Your task to perform on an android device: uninstall "Pinterest" Image 0: 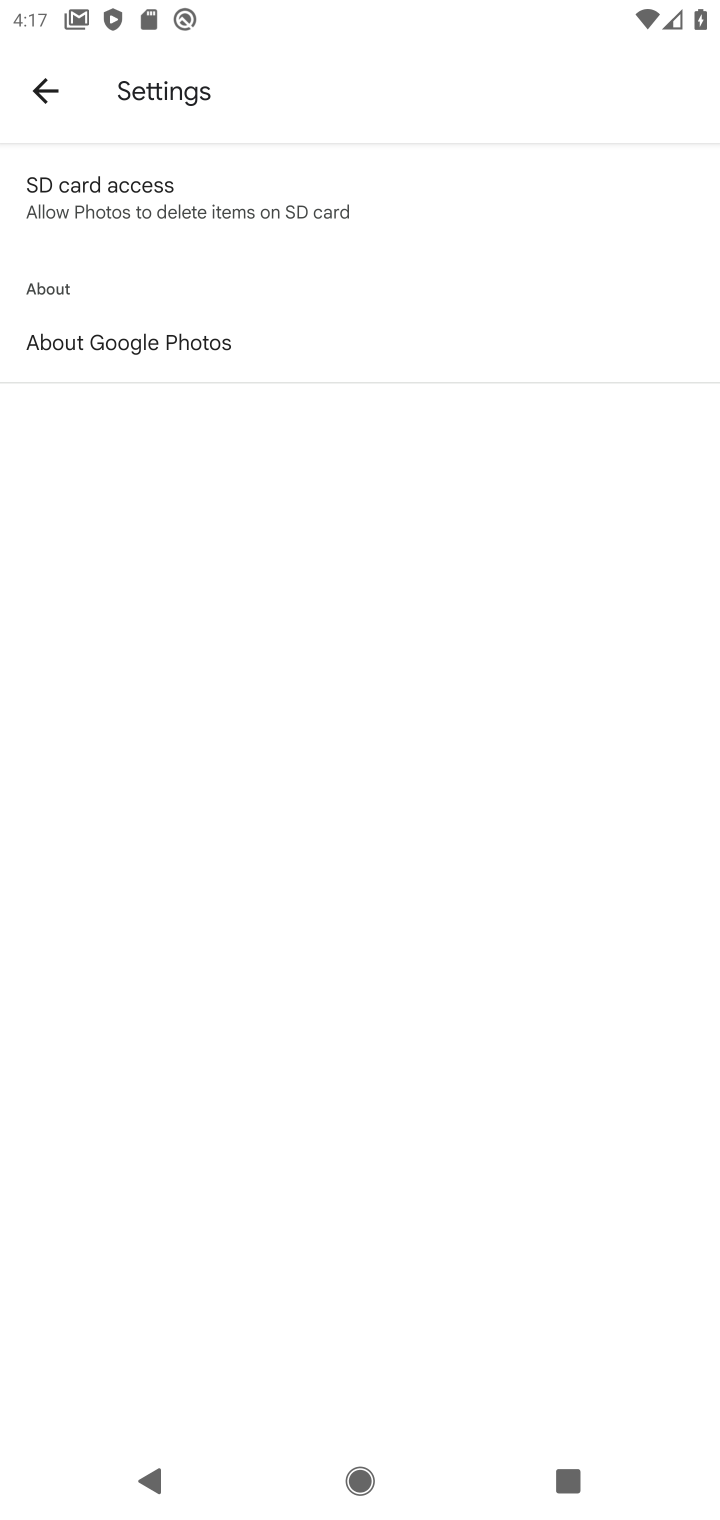
Step 0: press home button
Your task to perform on an android device: uninstall "Pinterest" Image 1: 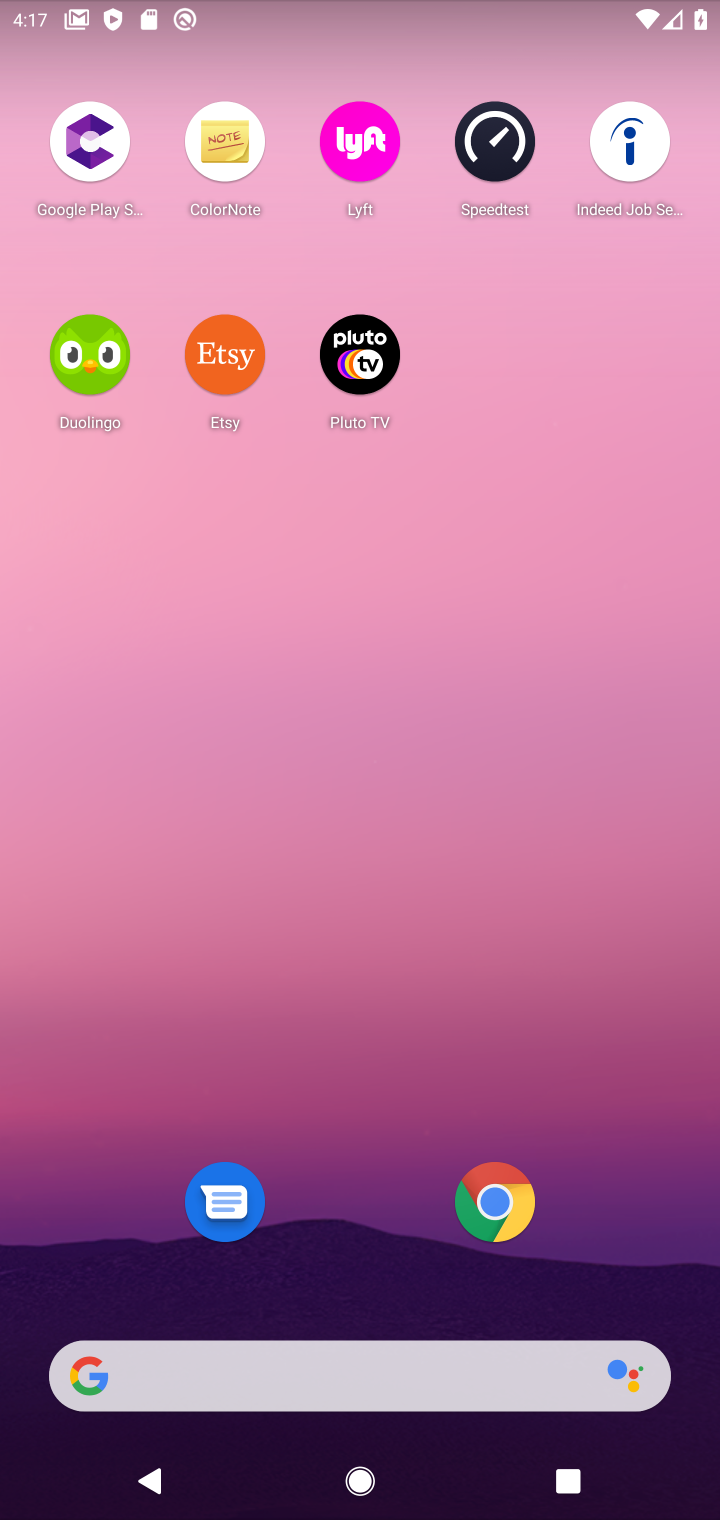
Step 1: drag from (332, 1130) to (446, 466)
Your task to perform on an android device: uninstall "Pinterest" Image 2: 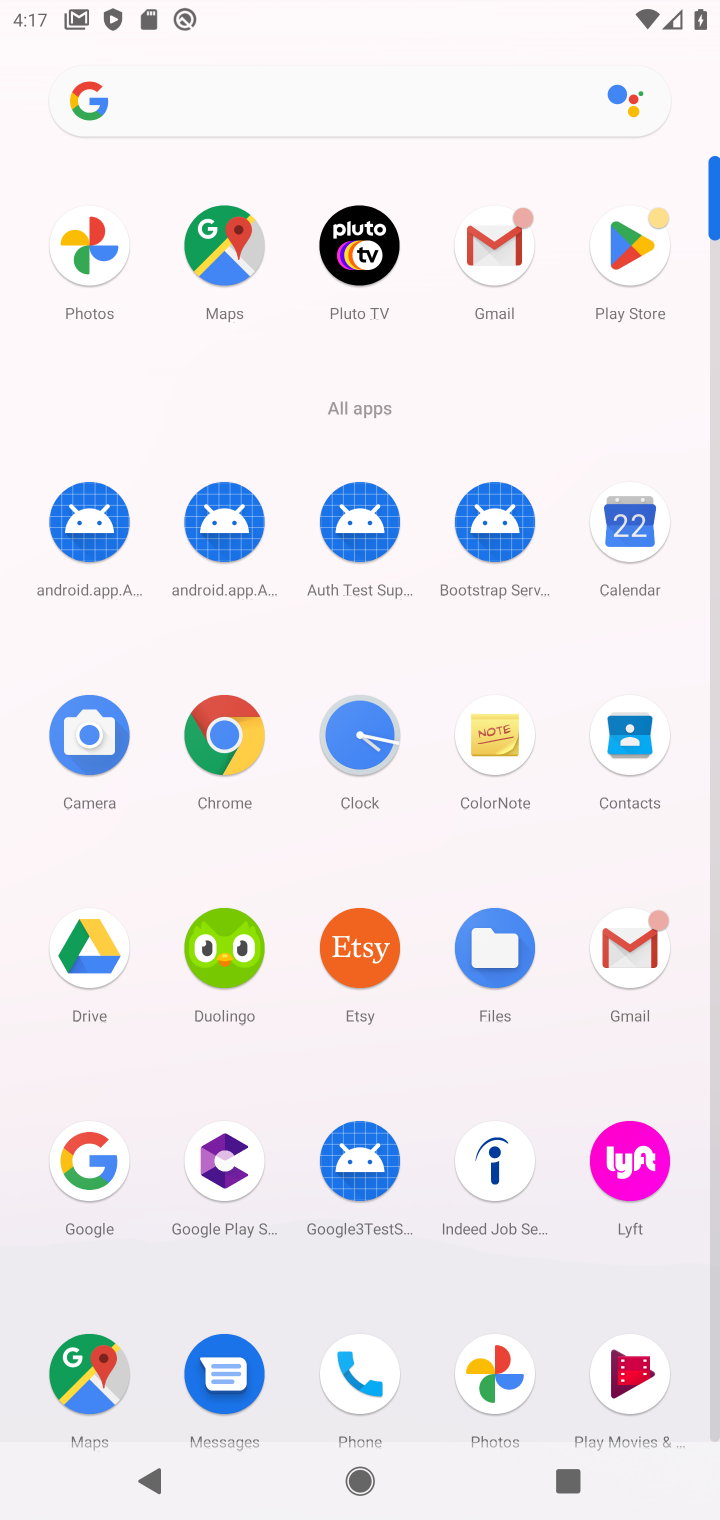
Step 2: click (620, 278)
Your task to perform on an android device: uninstall "Pinterest" Image 3: 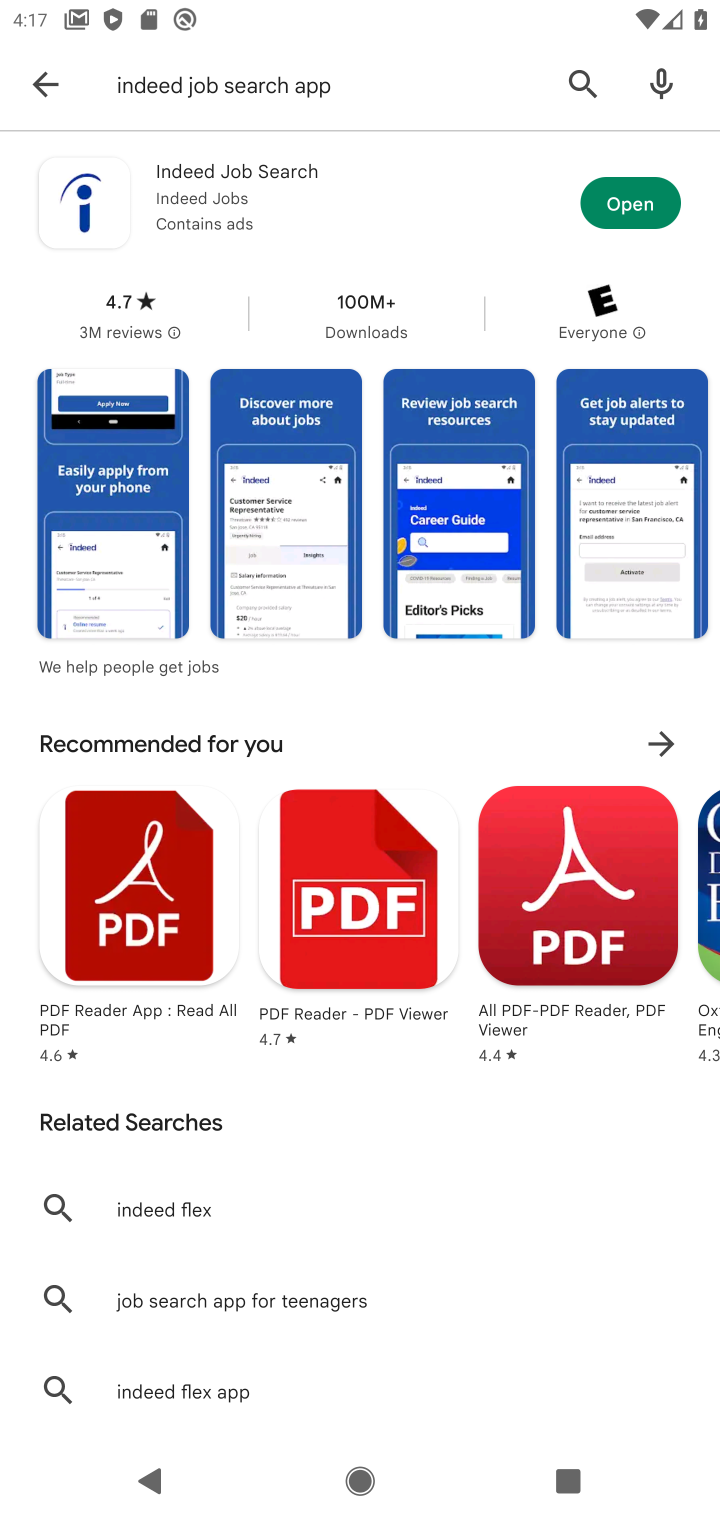
Step 3: click (325, 83)
Your task to perform on an android device: uninstall "Pinterest" Image 4: 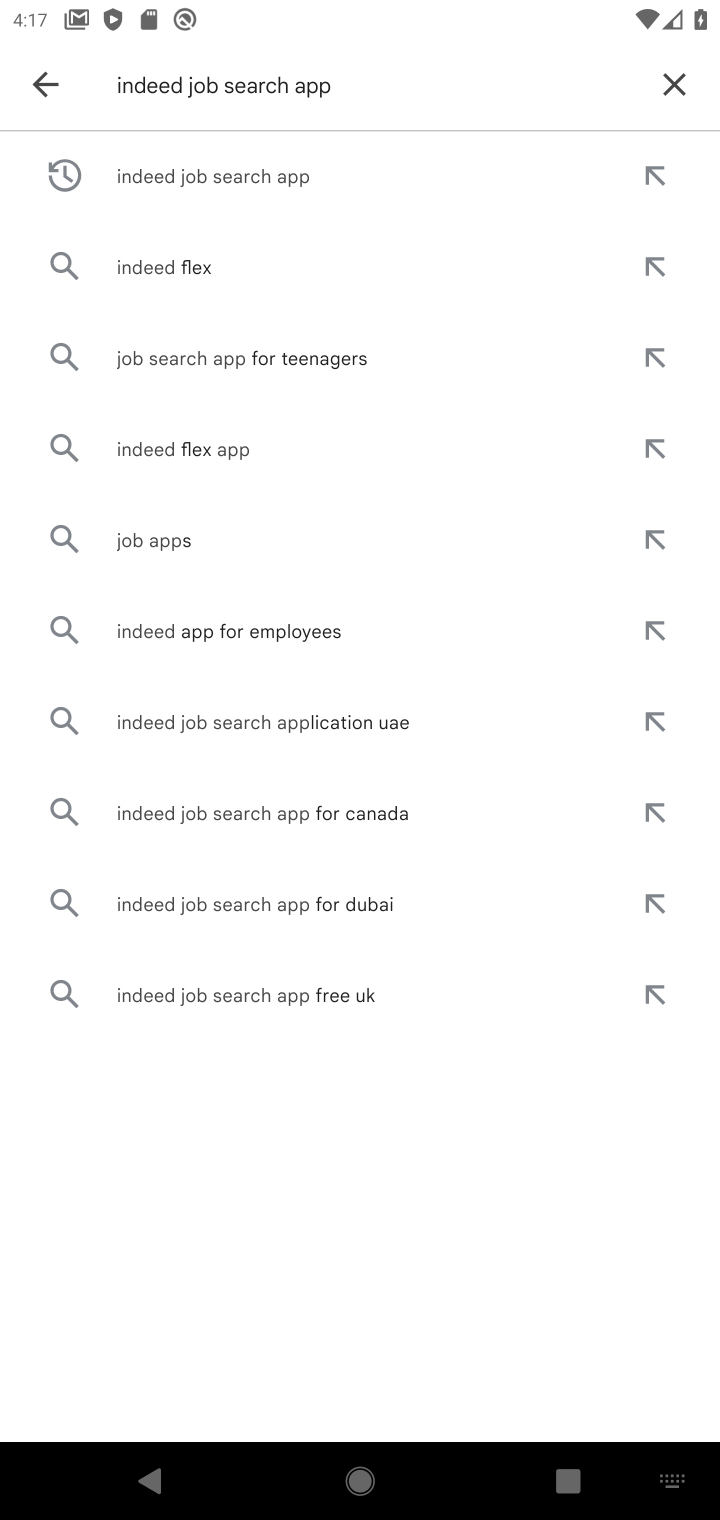
Step 4: click (667, 82)
Your task to perform on an android device: uninstall "Pinterest" Image 5: 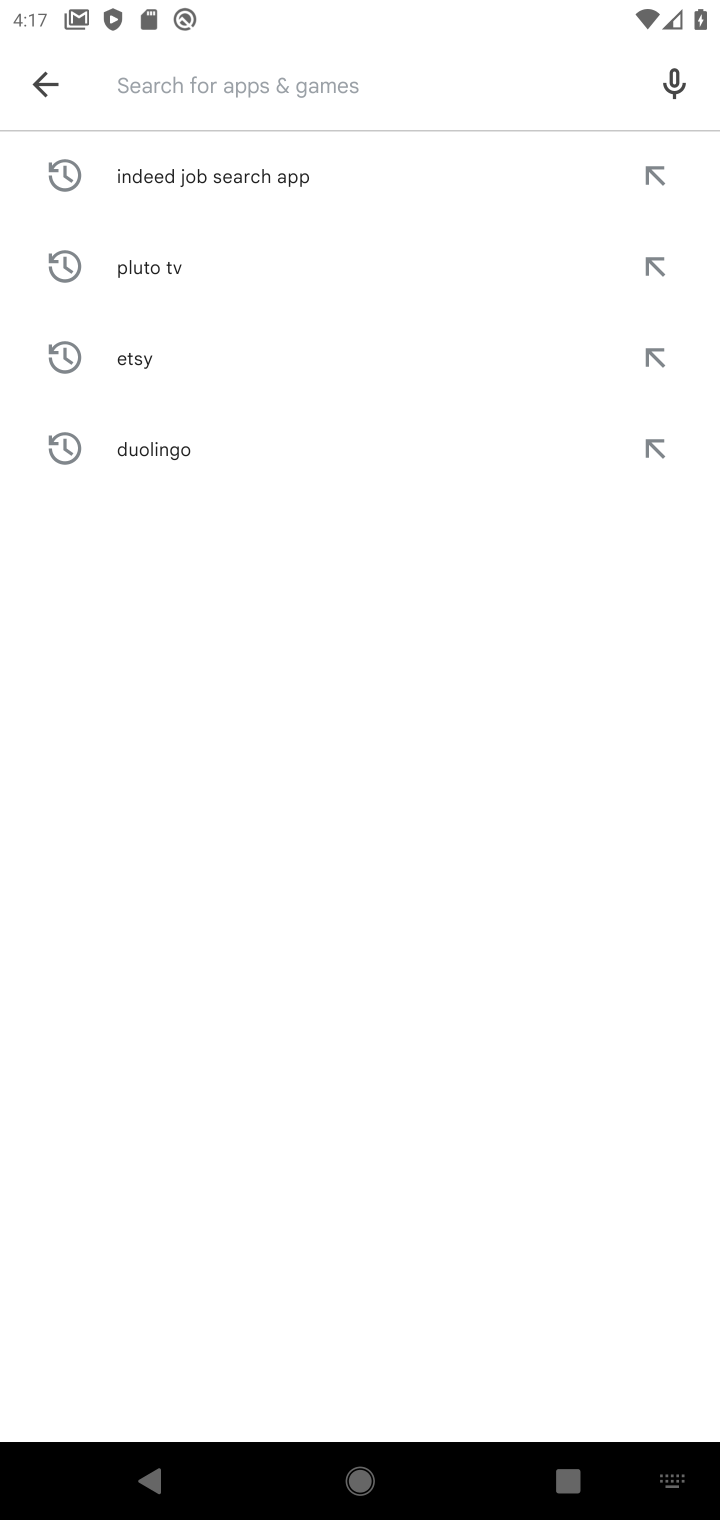
Step 5: type "pinterest"
Your task to perform on an android device: uninstall "Pinterest" Image 6: 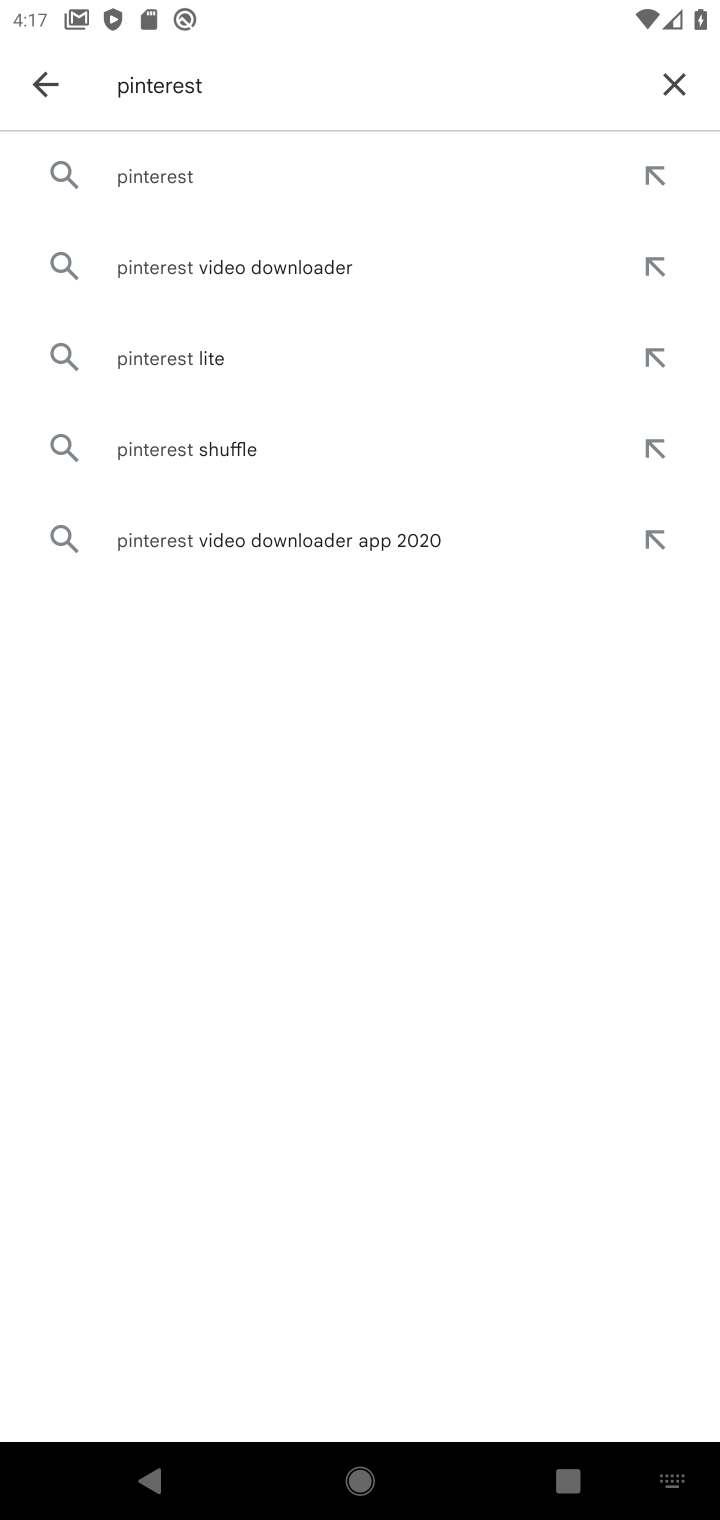
Step 6: click (191, 149)
Your task to perform on an android device: uninstall "Pinterest" Image 7: 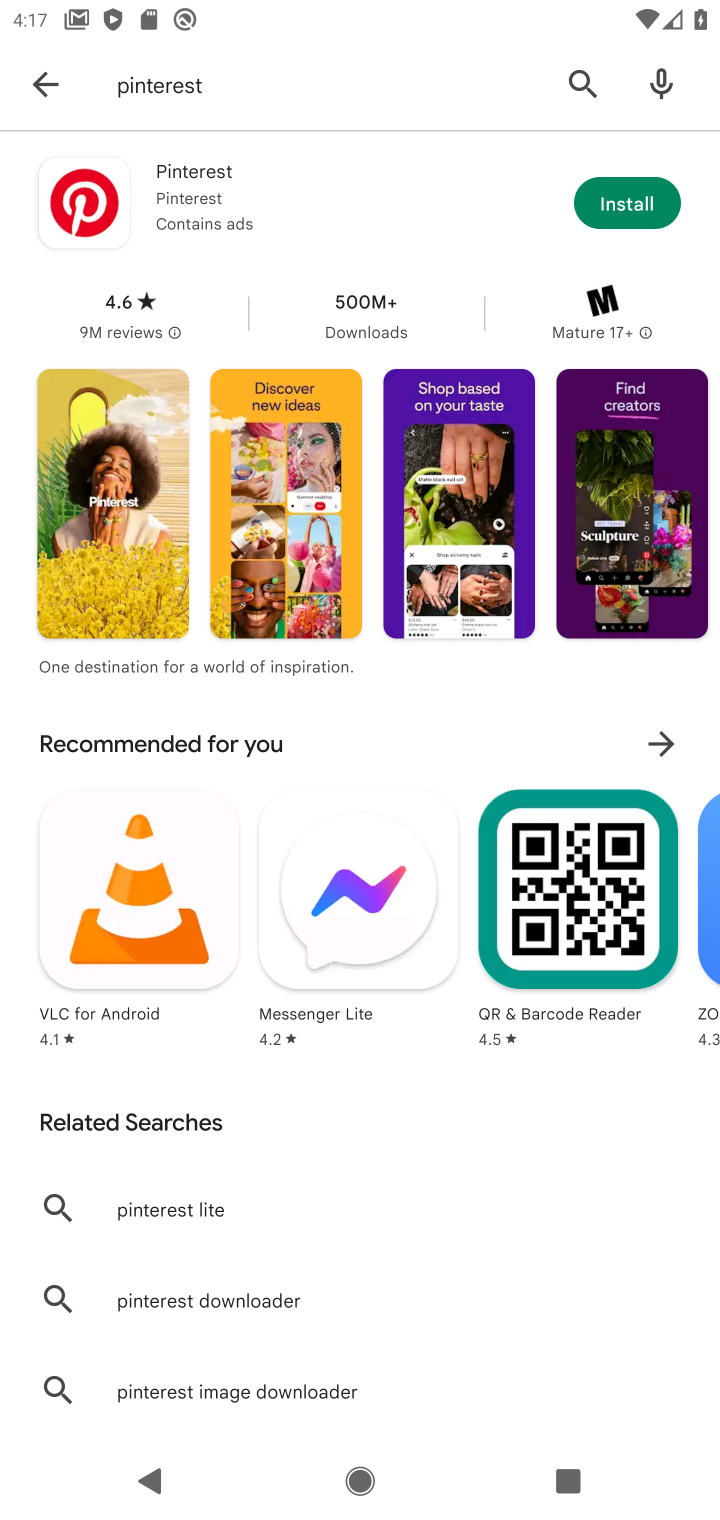
Step 7: task complete